Your task to perform on an android device: open app "DuckDuckGo Privacy Browser" (install if not already installed) and enter user name: "cleaving@outlook.com" and password: "freighters" Image 0: 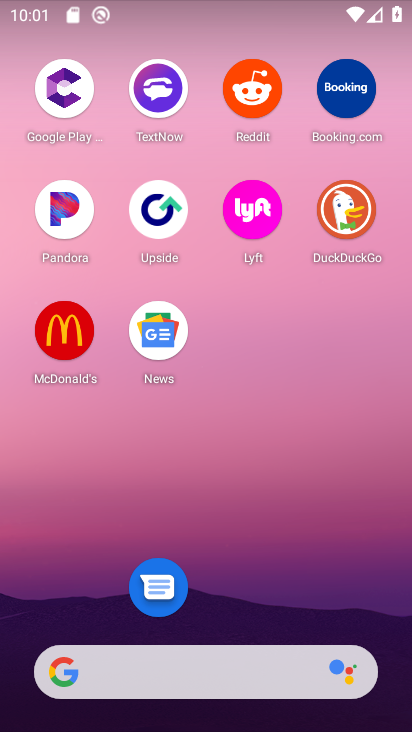
Step 0: drag from (202, 640) to (271, 108)
Your task to perform on an android device: open app "DuckDuckGo Privacy Browser" (install if not already installed) and enter user name: "cleaving@outlook.com" and password: "freighters" Image 1: 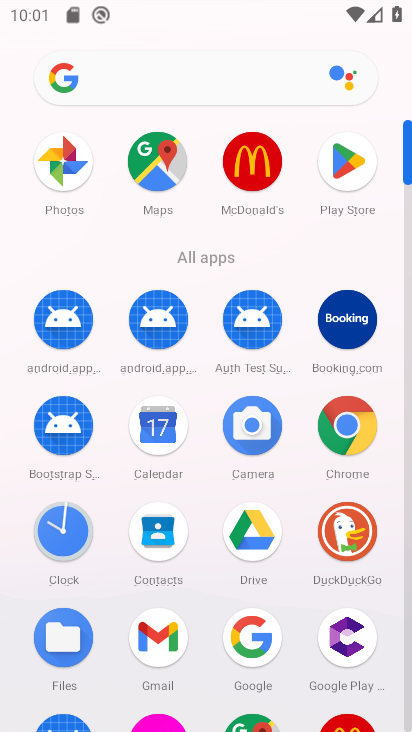
Step 1: click (356, 168)
Your task to perform on an android device: open app "DuckDuckGo Privacy Browser" (install if not already installed) and enter user name: "cleaving@outlook.com" and password: "freighters" Image 2: 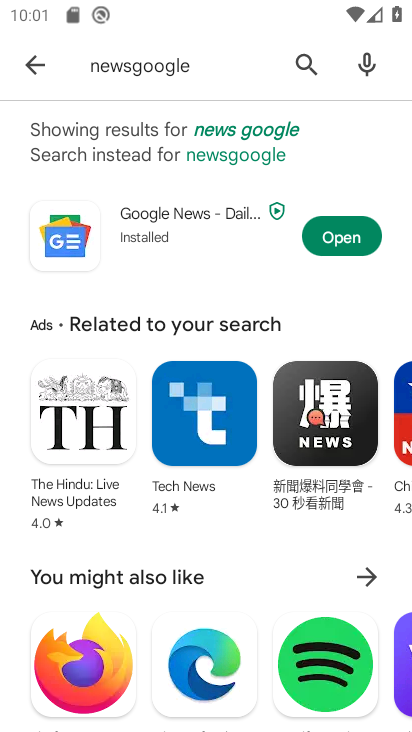
Step 2: click (290, 90)
Your task to perform on an android device: open app "DuckDuckGo Privacy Browser" (install if not already installed) and enter user name: "cleaving@outlook.com" and password: "freighters" Image 3: 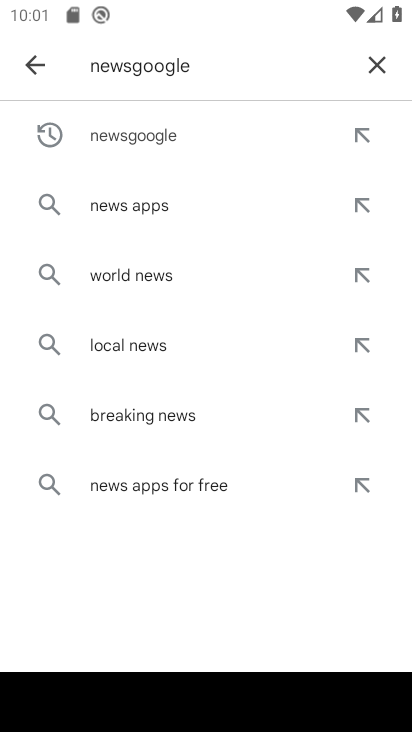
Step 3: click (375, 67)
Your task to perform on an android device: open app "DuckDuckGo Privacy Browser" (install if not already installed) and enter user name: "cleaving@outlook.com" and password: "freighters" Image 4: 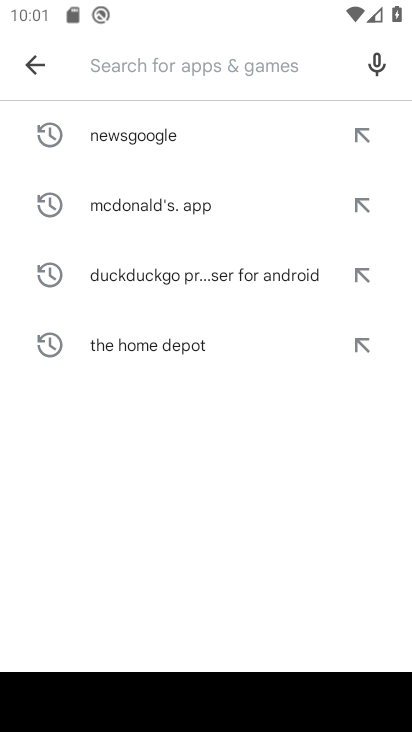
Step 4: type "DuckGo Privacy Browser"
Your task to perform on an android device: open app "DuckDuckGo Privacy Browser" (install if not already installed) and enter user name: "cleaving@outlook.com" and password: "freighters" Image 5: 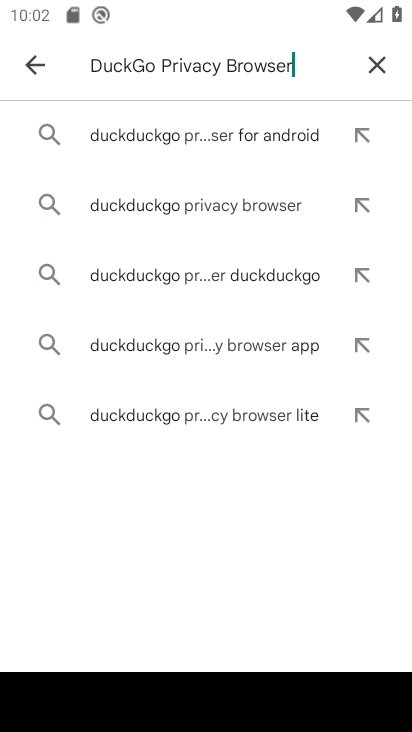
Step 5: click (242, 139)
Your task to perform on an android device: open app "DuckDuckGo Privacy Browser" (install if not already installed) and enter user name: "cleaving@outlook.com" and password: "freighters" Image 6: 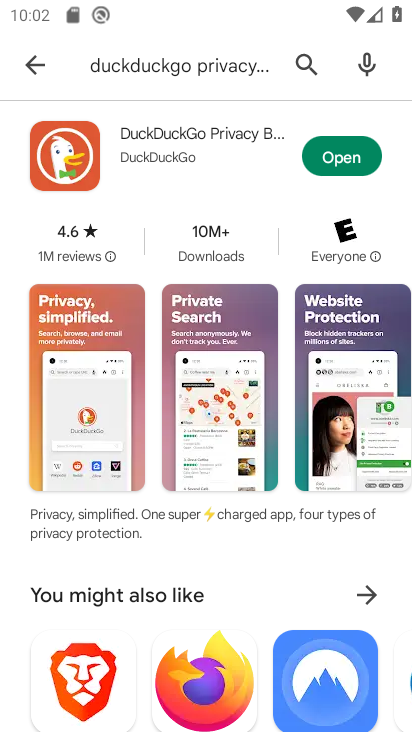
Step 6: click (327, 156)
Your task to perform on an android device: open app "DuckDuckGo Privacy Browser" (install if not already installed) and enter user name: "cleaving@outlook.com" and password: "freighters" Image 7: 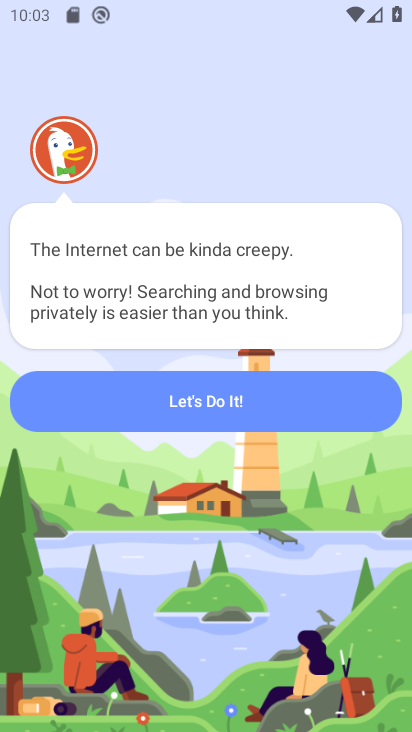
Step 7: task complete